Your task to perform on an android device: toggle notifications settings in the gmail app Image 0: 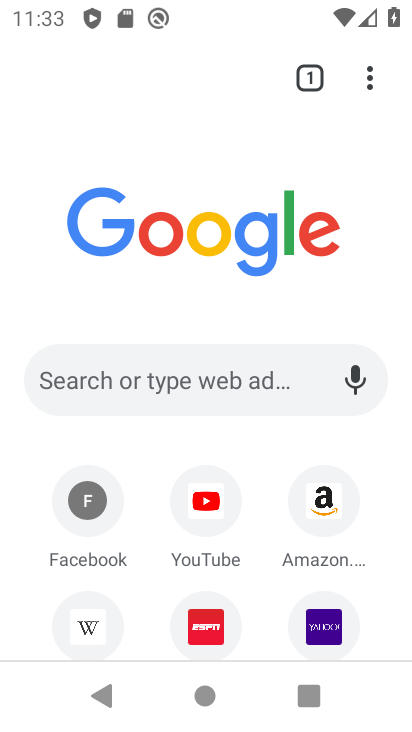
Step 0: press home button
Your task to perform on an android device: toggle notifications settings in the gmail app Image 1: 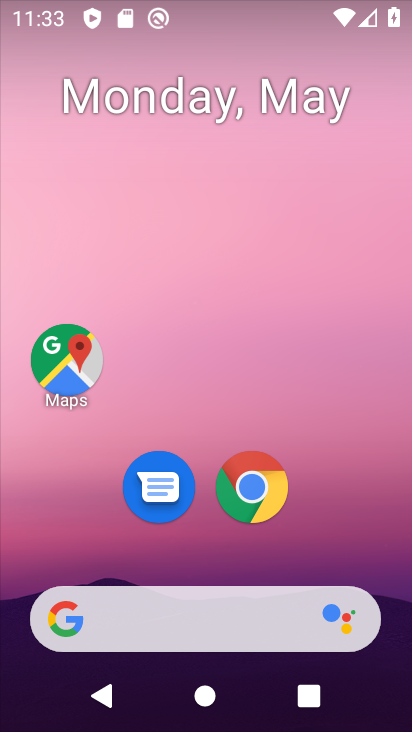
Step 1: press home button
Your task to perform on an android device: toggle notifications settings in the gmail app Image 2: 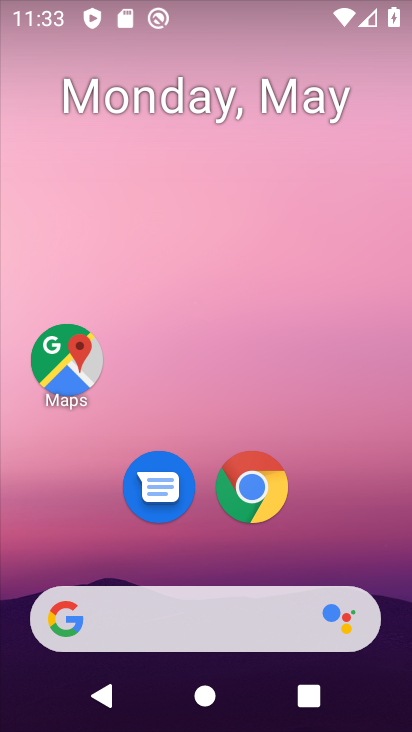
Step 2: press home button
Your task to perform on an android device: toggle notifications settings in the gmail app Image 3: 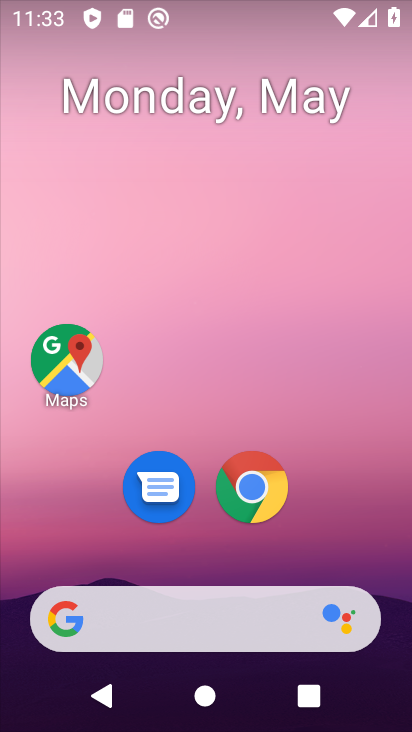
Step 3: press home button
Your task to perform on an android device: toggle notifications settings in the gmail app Image 4: 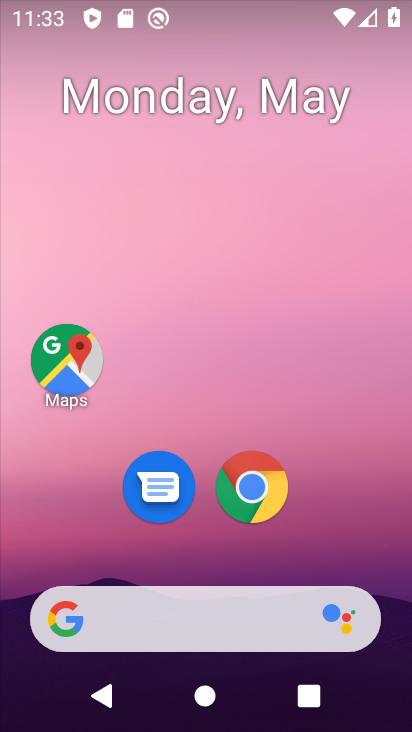
Step 4: press home button
Your task to perform on an android device: toggle notifications settings in the gmail app Image 5: 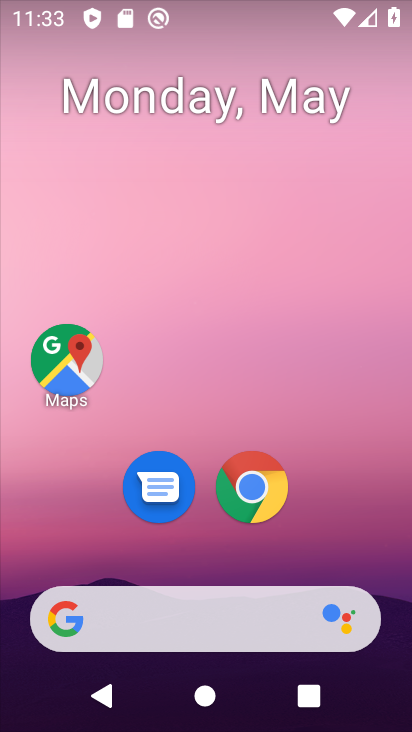
Step 5: drag from (7, 472) to (181, 154)
Your task to perform on an android device: toggle notifications settings in the gmail app Image 6: 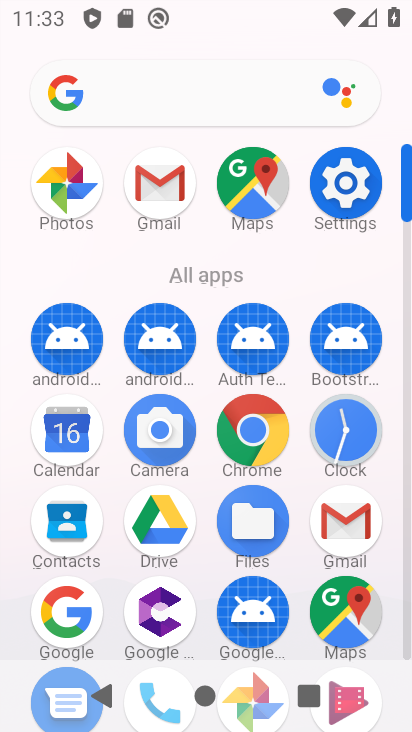
Step 6: click (339, 532)
Your task to perform on an android device: toggle notifications settings in the gmail app Image 7: 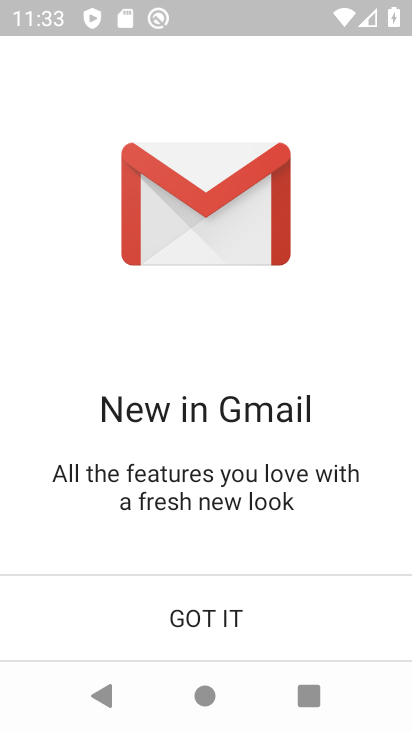
Step 7: click (204, 633)
Your task to perform on an android device: toggle notifications settings in the gmail app Image 8: 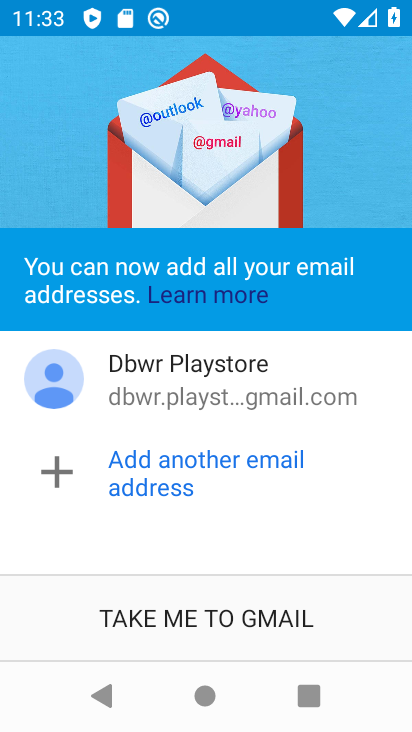
Step 8: click (217, 608)
Your task to perform on an android device: toggle notifications settings in the gmail app Image 9: 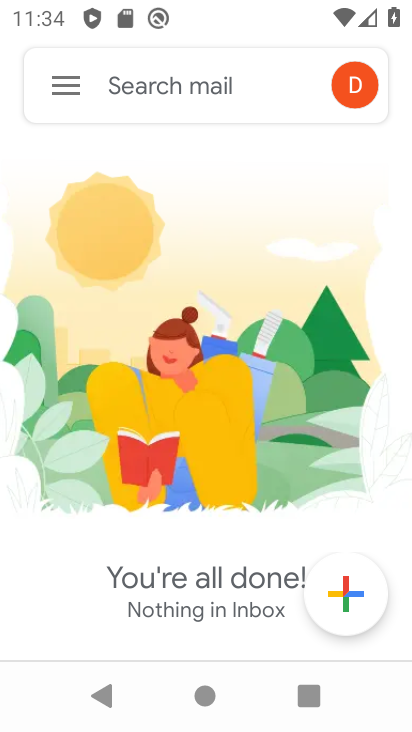
Step 9: press home button
Your task to perform on an android device: toggle notifications settings in the gmail app Image 10: 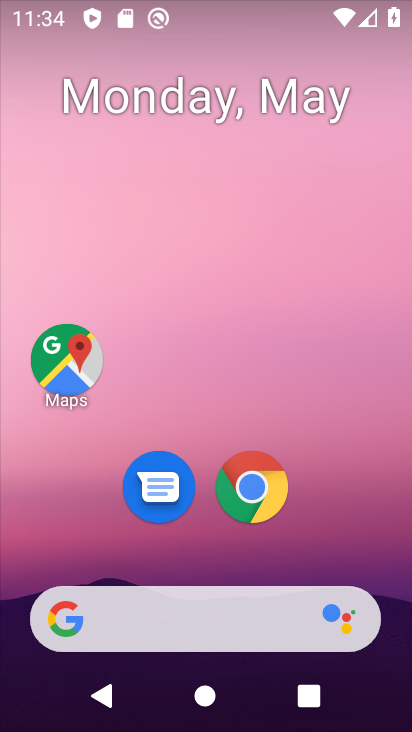
Step 10: drag from (31, 452) to (166, 176)
Your task to perform on an android device: toggle notifications settings in the gmail app Image 11: 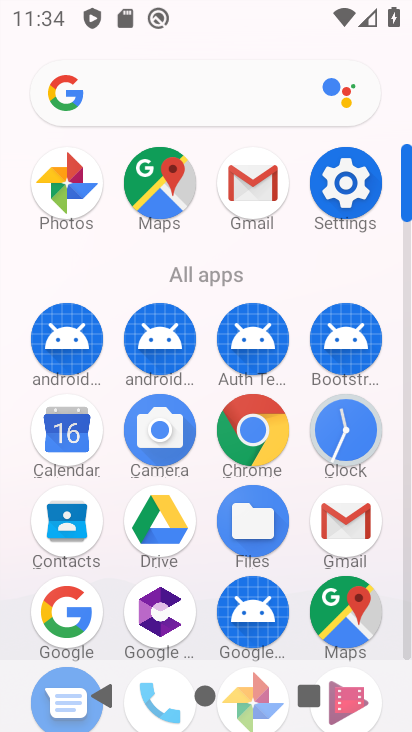
Step 11: click (258, 190)
Your task to perform on an android device: toggle notifications settings in the gmail app Image 12: 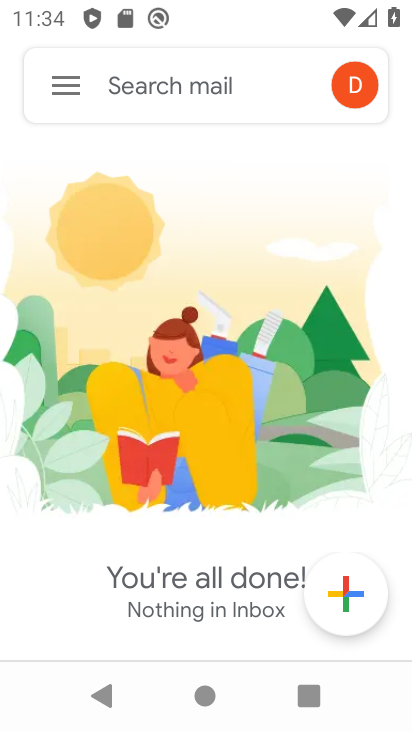
Step 12: click (57, 77)
Your task to perform on an android device: toggle notifications settings in the gmail app Image 13: 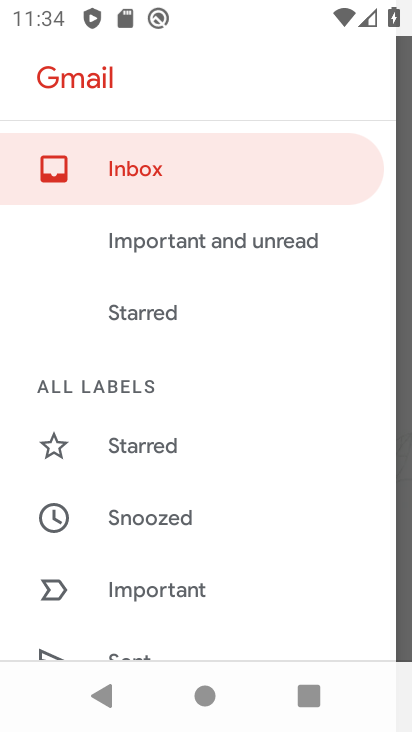
Step 13: drag from (0, 674) to (185, 82)
Your task to perform on an android device: toggle notifications settings in the gmail app Image 14: 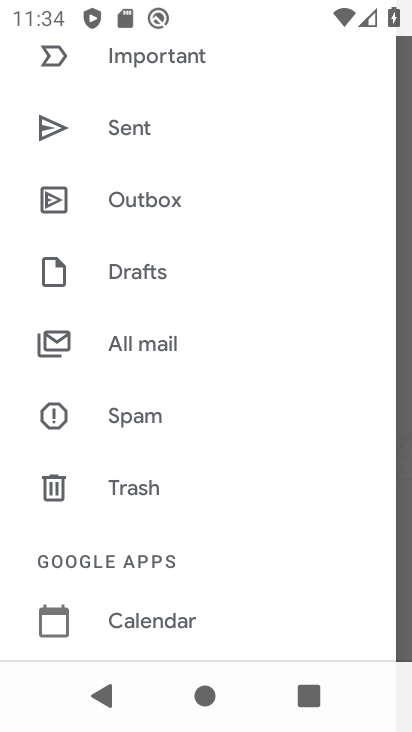
Step 14: drag from (24, 598) to (233, 229)
Your task to perform on an android device: toggle notifications settings in the gmail app Image 15: 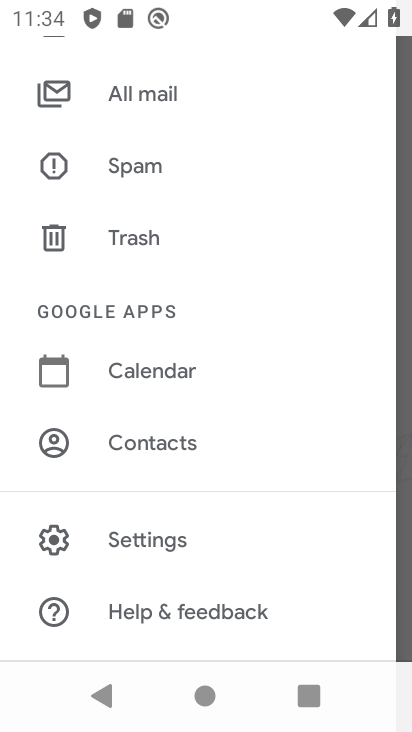
Step 15: click (129, 544)
Your task to perform on an android device: toggle notifications settings in the gmail app Image 16: 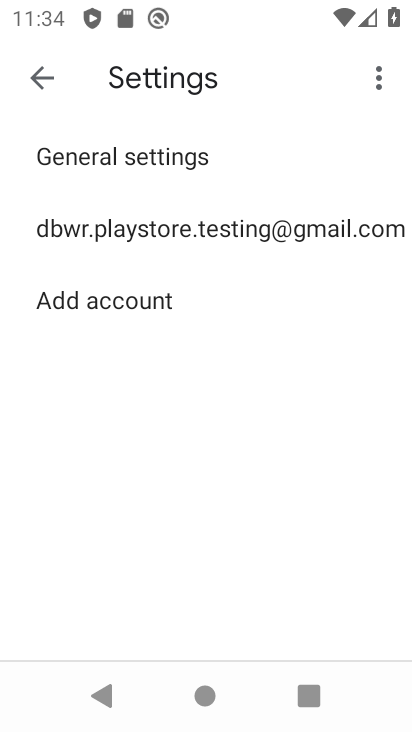
Step 16: click (164, 224)
Your task to perform on an android device: toggle notifications settings in the gmail app Image 17: 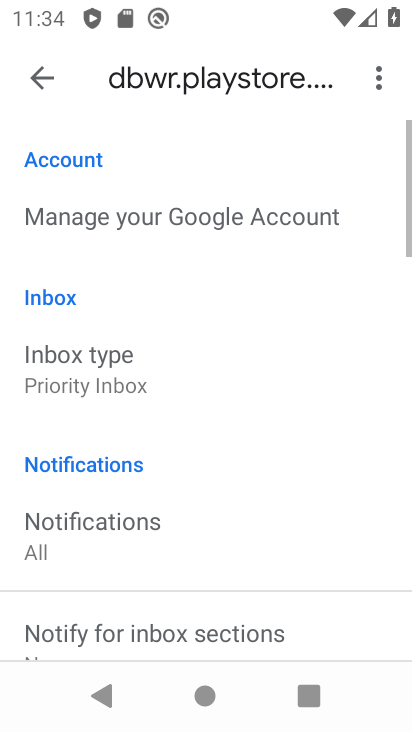
Step 17: drag from (11, 630) to (200, 153)
Your task to perform on an android device: toggle notifications settings in the gmail app Image 18: 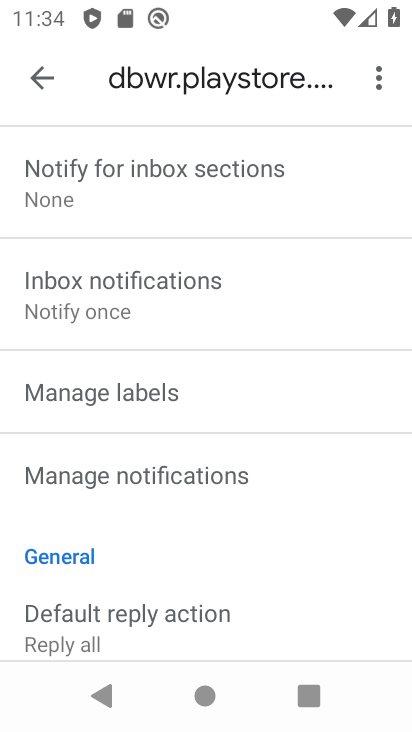
Step 18: click (94, 476)
Your task to perform on an android device: toggle notifications settings in the gmail app Image 19: 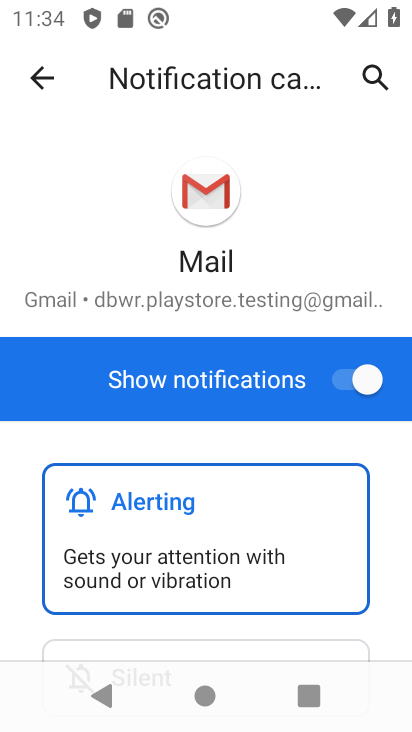
Step 19: click (368, 390)
Your task to perform on an android device: toggle notifications settings in the gmail app Image 20: 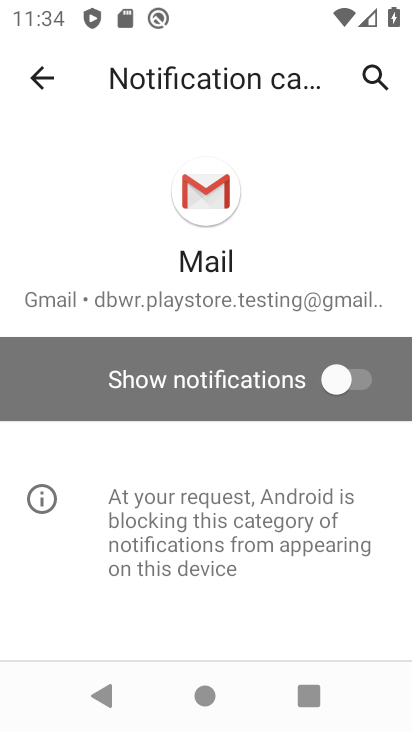
Step 20: task complete